Your task to perform on an android device: Open network settings Image 0: 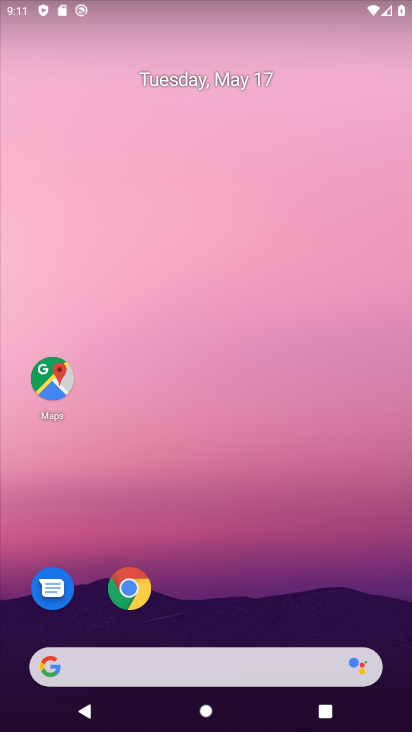
Step 0: drag from (242, 726) to (228, 174)
Your task to perform on an android device: Open network settings Image 1: 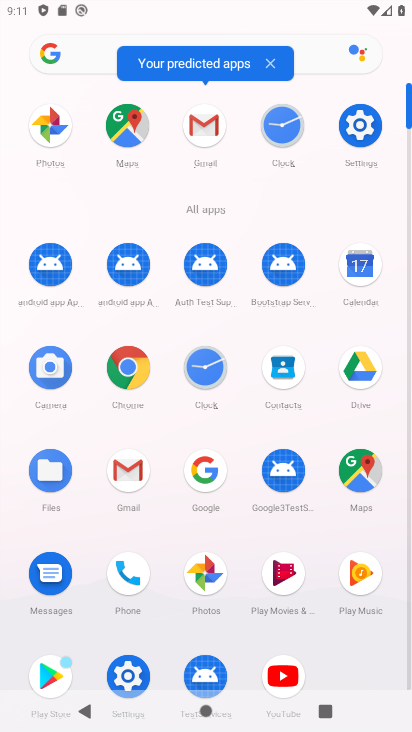
Step 1: click (360, 125)
Your task to perform on an android device: Open network settings Image 2: 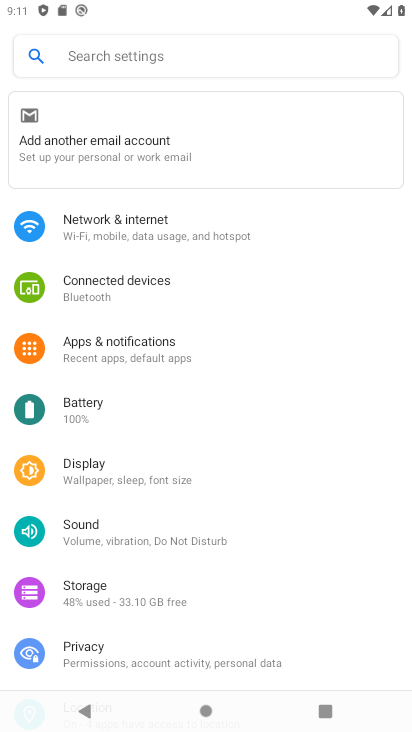
Step 2: click (122, 235)
Your task to perform on an android device: Open network settings Image 3: 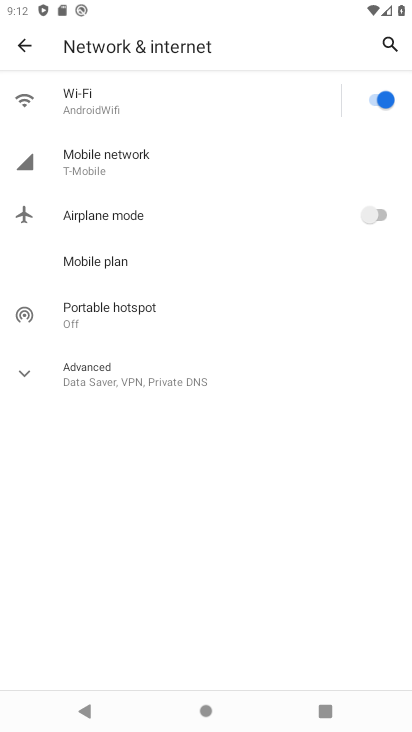
Step 3: click (104, 160)
Your task to perform on an android device: Open network settings Image 4: 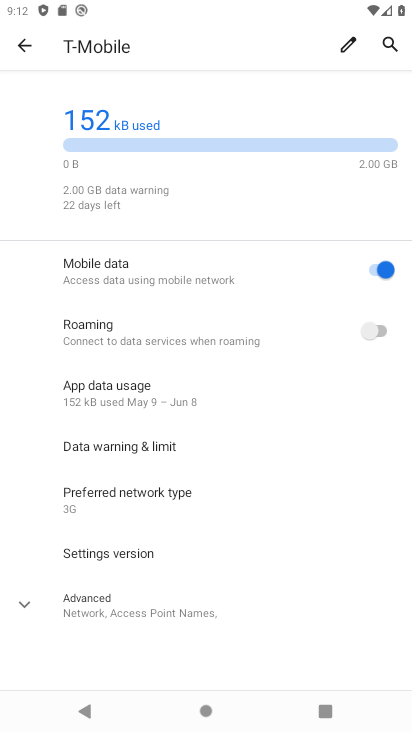
Step 4: task complete